Your task to perform on an android device: What's the latest news in cosmology? Image 0: 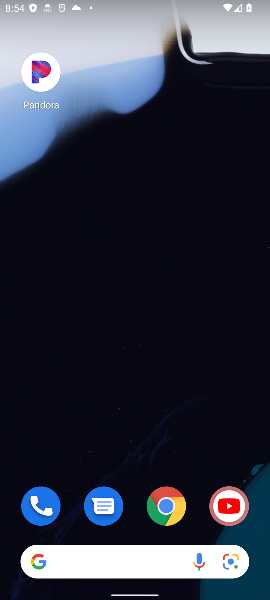
Step 0: click (169, 506)
Your task to perform on an android device: What's the latest news in cosmology? Image 1: 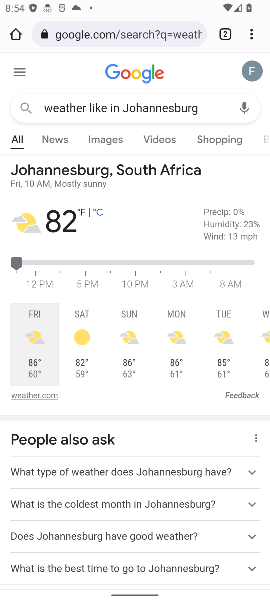
Step 1: click (159, 33)
Your task to perform on an android device: What's the latest news in cosmology? Image 2: 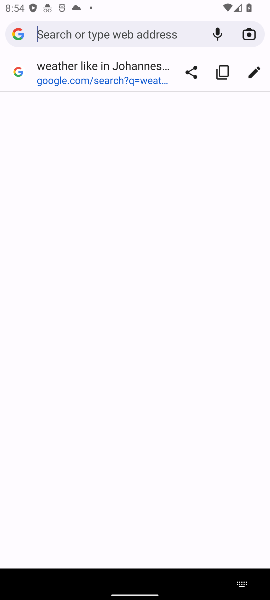
Step 2: type "latest news in cosmology"
Your task to perform on an android device: What's the latest news in cosmology? Image 3: 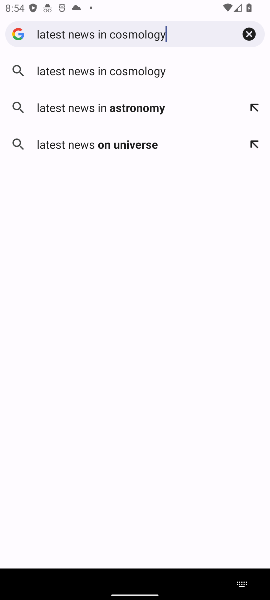
Step 3: click (101, 70)
Your task to perform on an android device: What's the latest news in cosmology? Image 4: 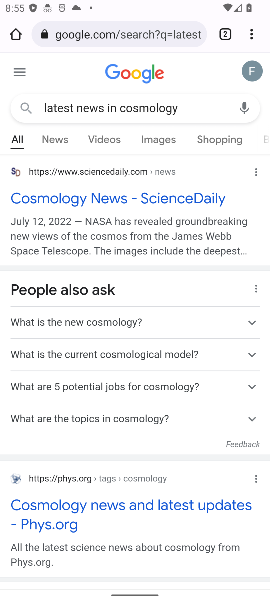
Step 4: click (112, 199)
Your task to perform on an android device: What's the latest news in cosmology? Image 5: 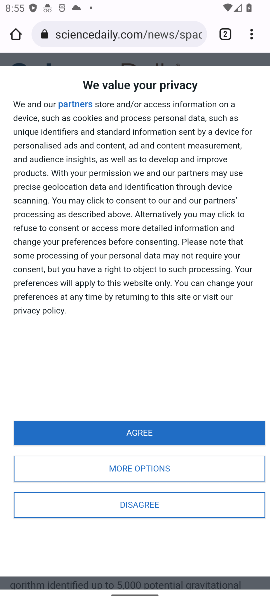
Step 5: click (140, 434)
Your task to perform on an android device: What's the latest news in cosmology? Image 6: 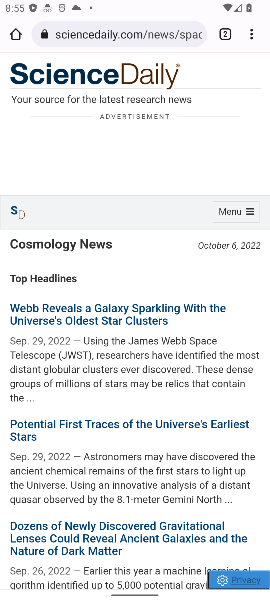
Step 6: task complete